Your task to perform on an android device: open wifi settings Image 0: 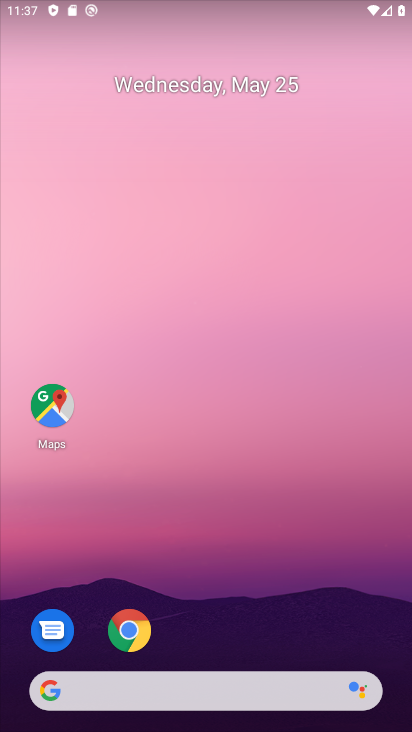
Step 0: drag from (215, 654) to (303, 166)
Your task to perform on an android device: open wifi settings Image 1: 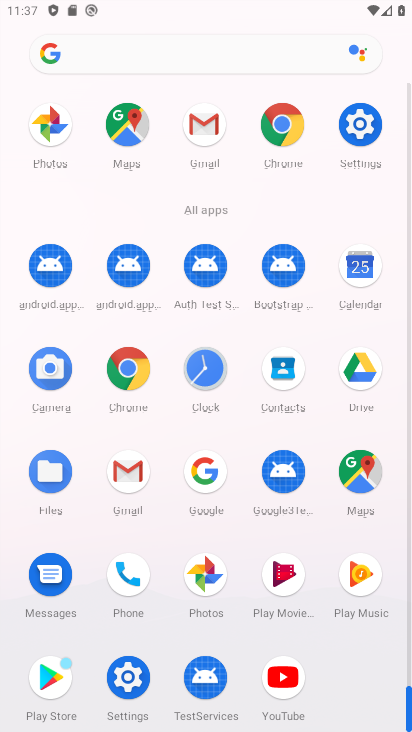
Step 1: click (120, 698)
Your task to perform on an android device: open wifi settings Image 2: 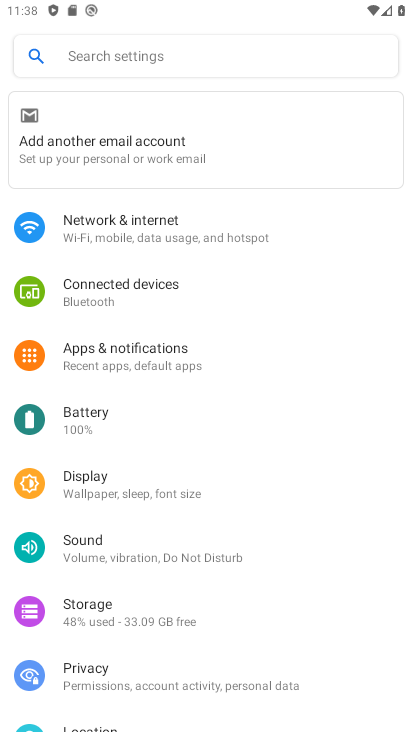
Step 2: click (174, 226)
Your task to perform on an android device: open wifi settings Image 3: 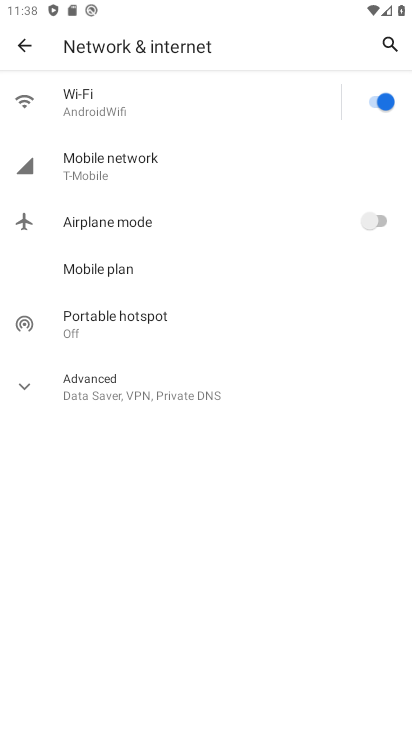
Step 3: click (210, 122)
Your task to perform on an android device: open wifi settings Image 4: 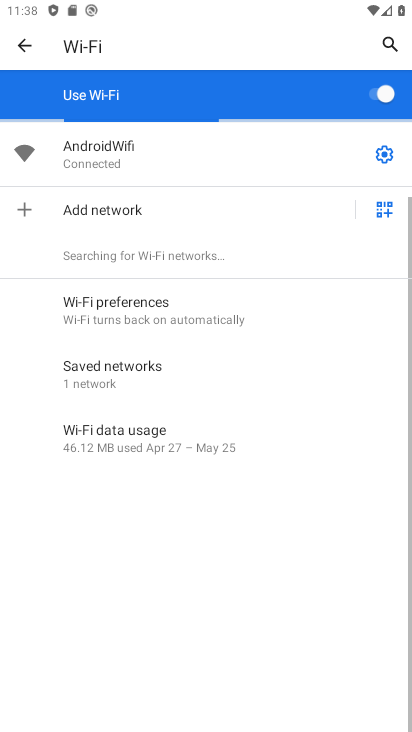
Step 4: task complete